Your task to perform on an android device: clear all cookies in the chrome app Image 0: 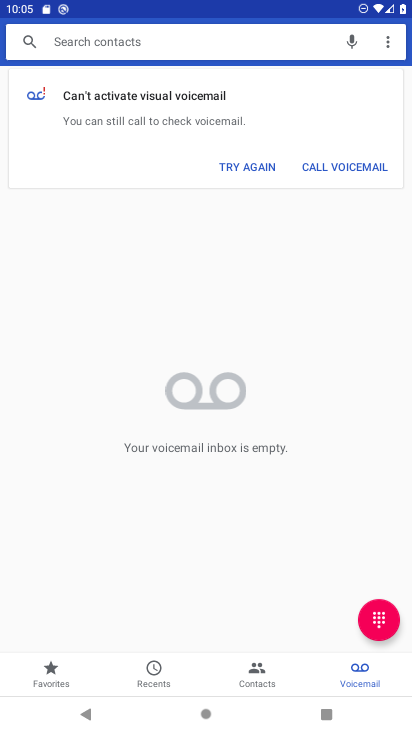
Step 0: press home button
Your task to perform on an android device: clear all cookies in the chrome app Image 1: 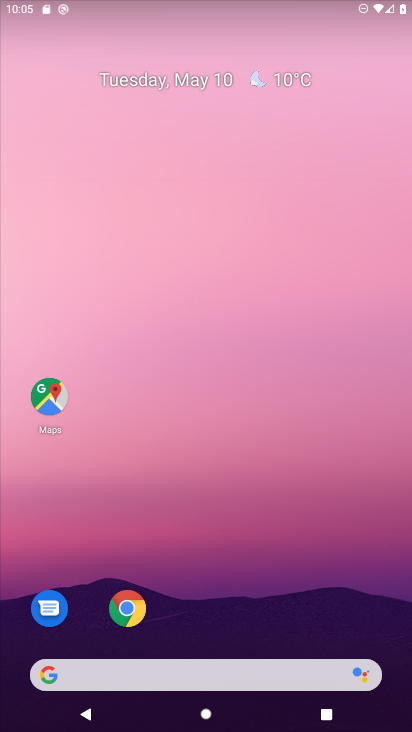
Step 1: drag from (363, 618) to (286, 6)
Your task to perform on an android device: clear all cookies in the chrome app Image 2: 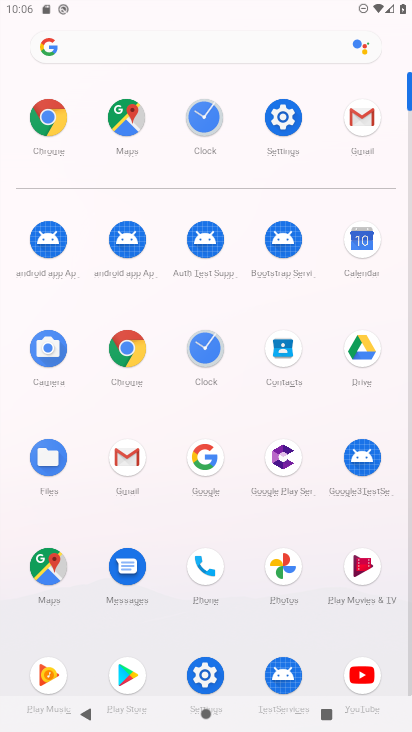
Step 2: click (125, 344)
Your task to perform on an android device: clear all cookies in the chrome app Image 3: 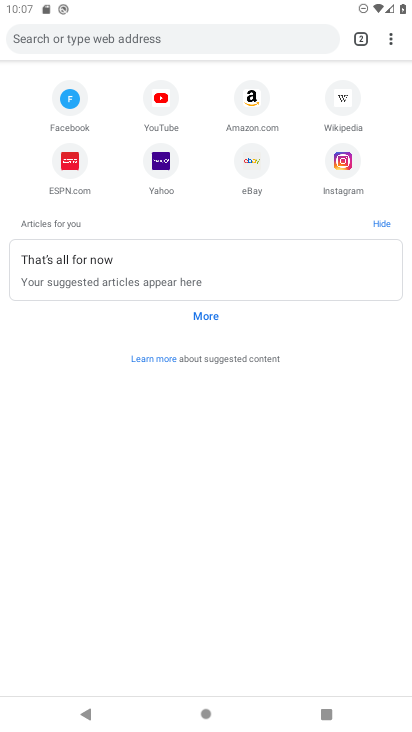
Step 3: click (392, 30)
Your task to perform on an android device: clear all cookies in the chrome app Image 4: 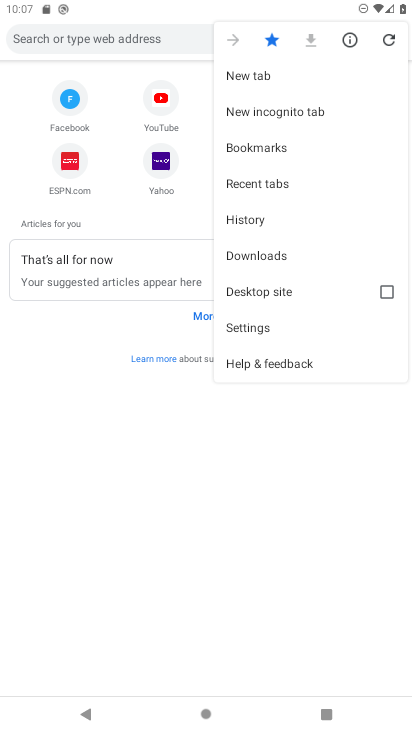
Step 4: click (258, 215)
Your task to perform on an android device: clear all cookies in the chrome app Image 5: 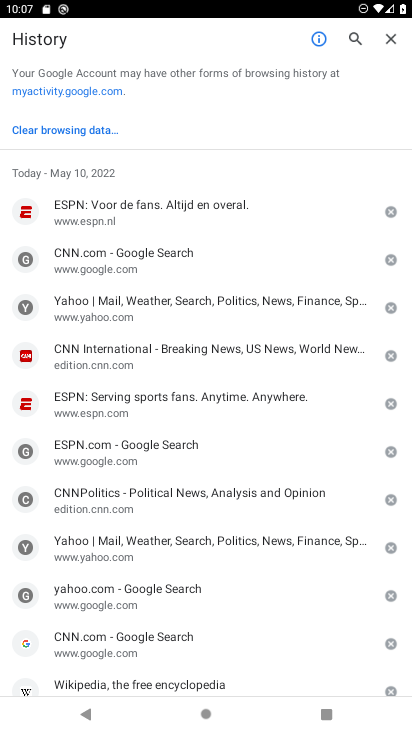
Step 5: click (84, 131)
Your task to perform on an android device: clear all cookies in the chrome app Image 6: 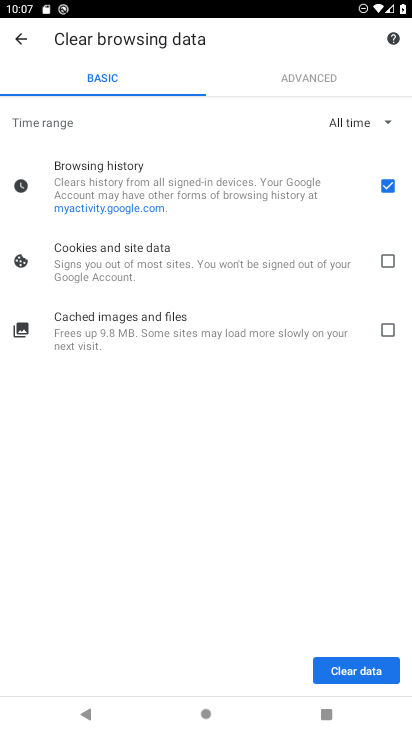
Step 6: click (357, 660)
Your task to perform on an android device: clear all cookies in the chrome app Image 7: 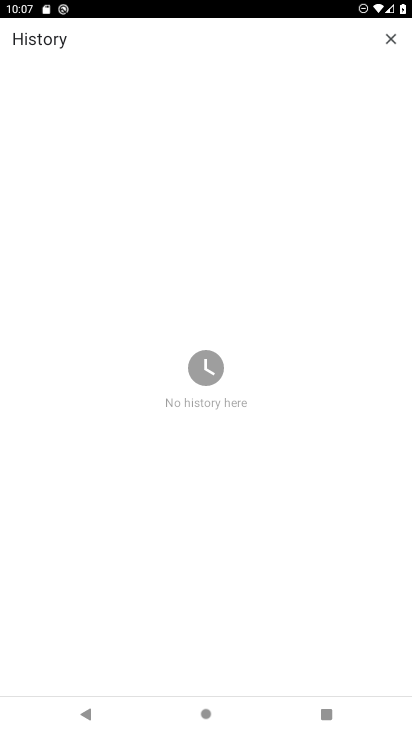
Step 7: task complete